Your task to perform on an android device: turn smart compose on in the gmail app Image 0: 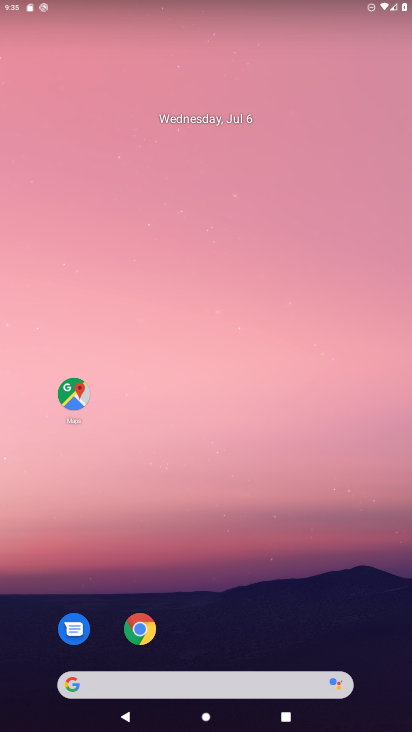
Step 0: drag from (230, 689) to (396, 389)
Your task to perform on an android device: turn smart compose on in the gmail app Image 1: 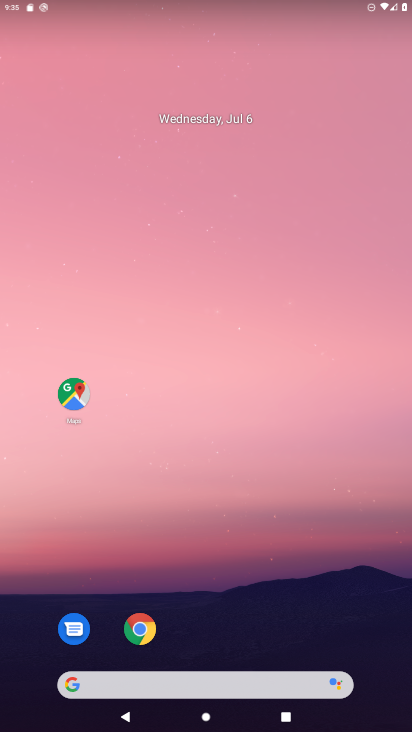
Step 1: click (127, 392)
Your task to perform on an android device: turn smart compose on in the gmail app Image 2: 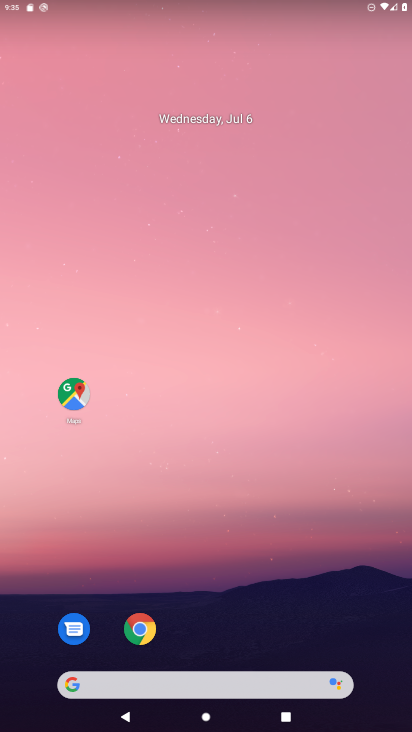
Step 2: drag from (194, 659) to (231, 14)
Your task to perform on an android device: turn smart compose on in the gmail app Image 3: 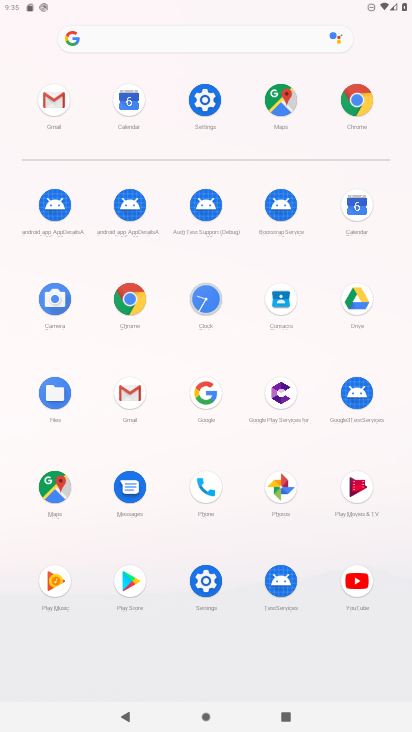
Step 3: click (141, 396)
Your task to perform on an android device: turn smart compose on in the gmail app Image 4: 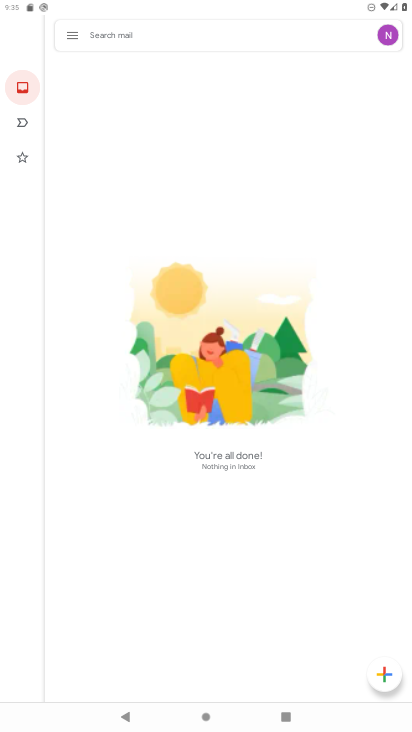
Step 4: click (68, 33)
Your task to perform on an android device: turn smart compose on in the gmail app Image 5: 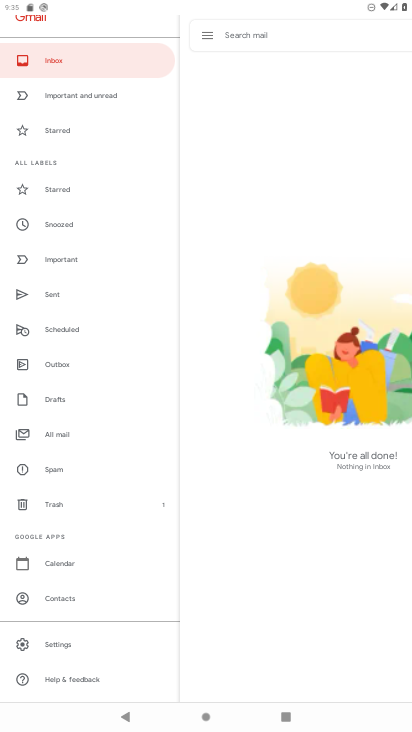
Step 5: click (70, 647)
Your task to perform on an android device: turn smart compose on in the gmail app Image 6: 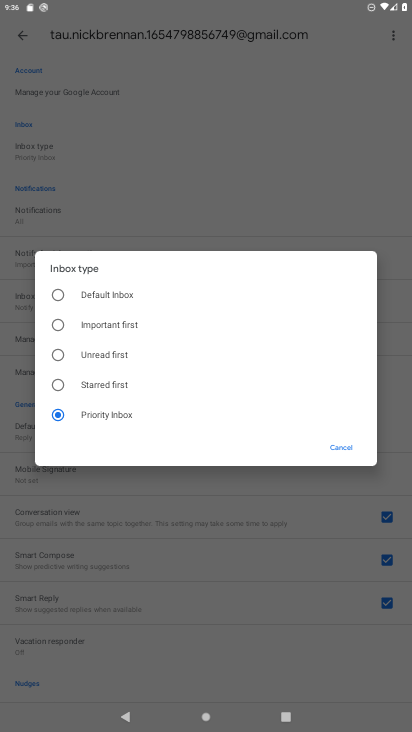
Step 6: click (195, 574)
Your task to perform on an android device: turn smart compose on in the gmail app Image 7: 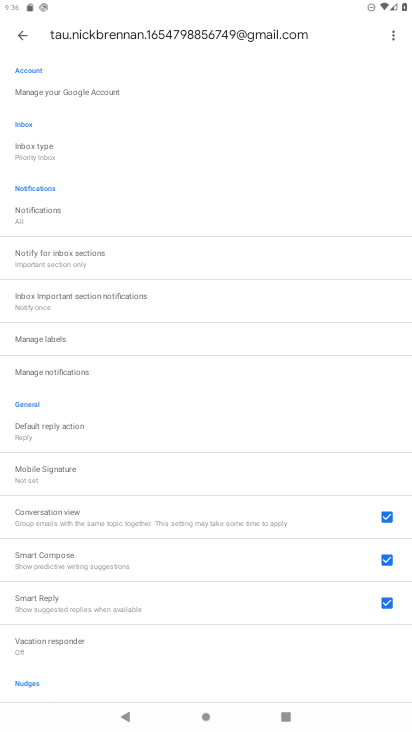
Step 7: task complete